Your task to perform on an android device: empty trash in google photos Image 0: 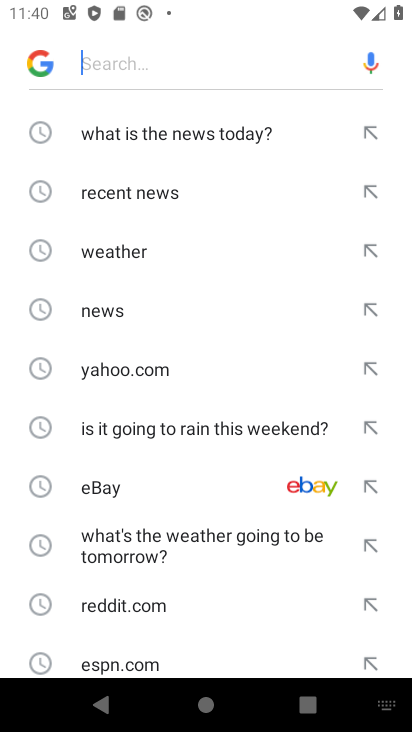
Step 0: press home button
Your task to perform on an android device: empty trash in google photos Image 1: 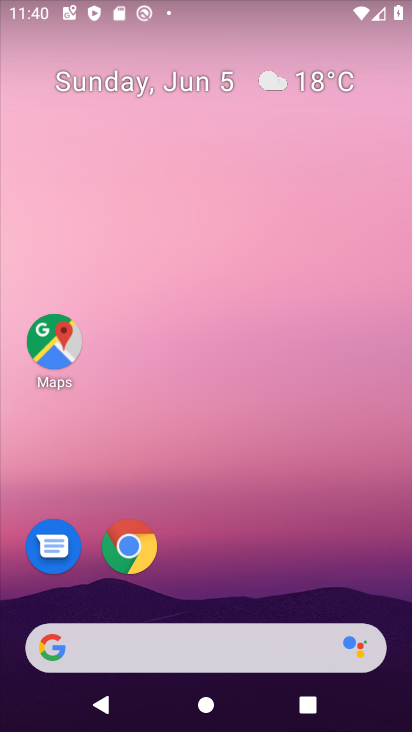
Step 1: drag from (298, 425) to (298, 89)
Your task to perform on an android device: empty trash in google photos Image 2: 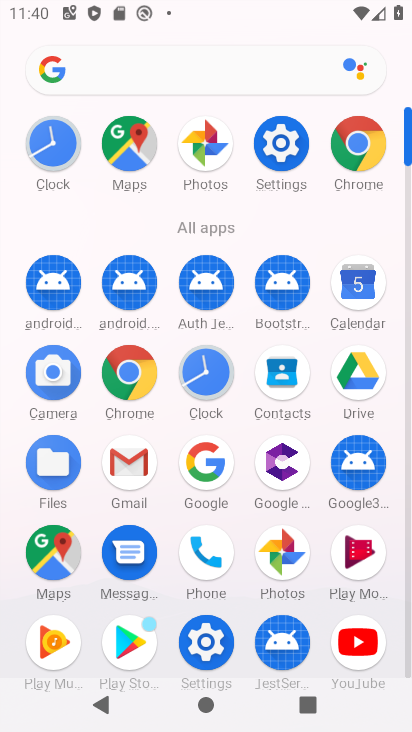
Step 2: click (193, 150)
Your task to perform on an android device: empty trash in google photos Image 3: 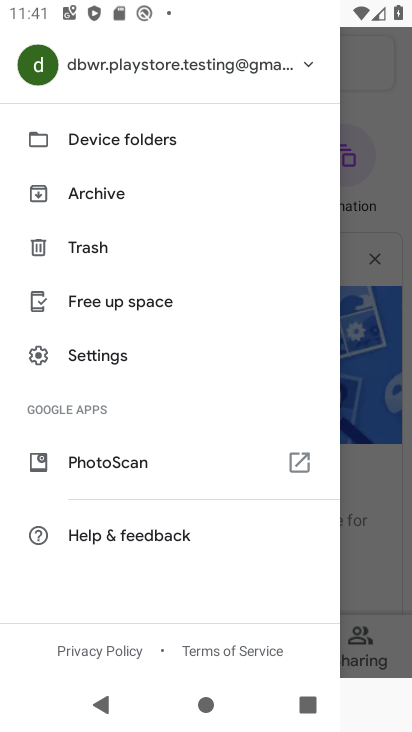
Step 3: click (94, 243)
Your task to perform on an android device: empty trash in google photos Image 4: 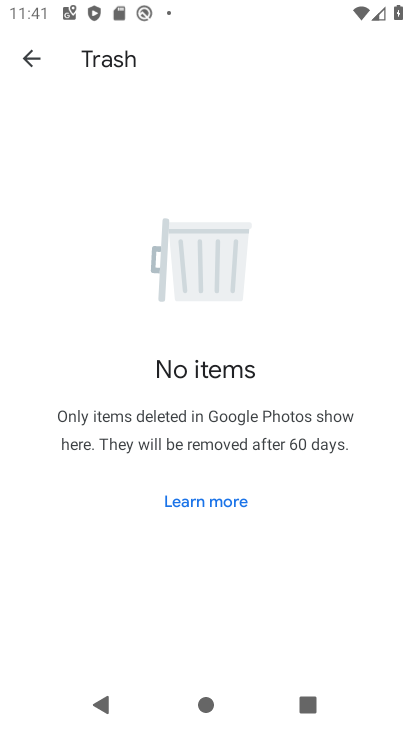
Step 4: task complete